Your task to perform on an android device: move a message to another label in the gmail app Image 0: 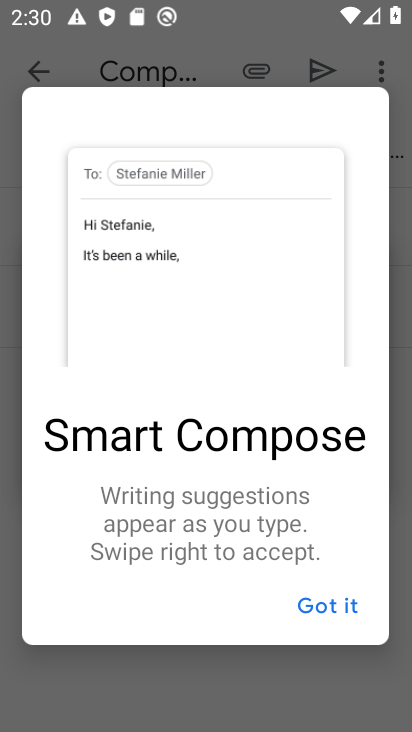
Step 0: press back button
Your task to perform on an android device: move a message to another label in the gmail app Image 1: 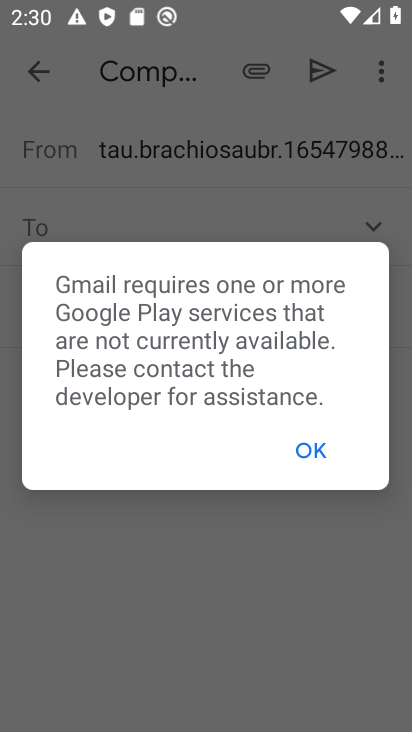
Step 1: press back button
Your task to perform on an android device: move a message to another label in the gmail app Image 2: 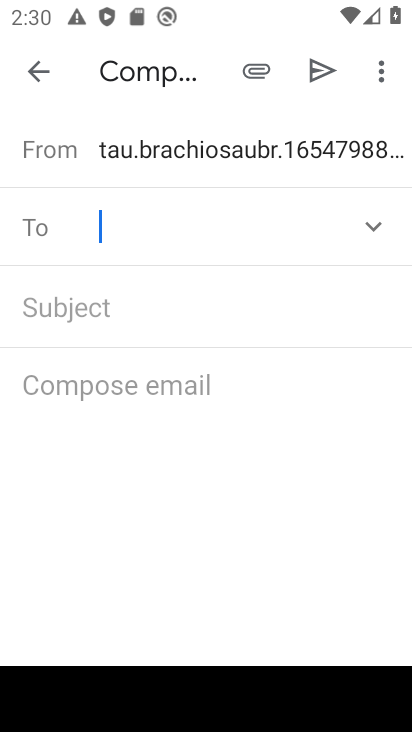
Step 2: press home button
Your task to perform on an android device: move a message to another label in the gmail app Image 3: 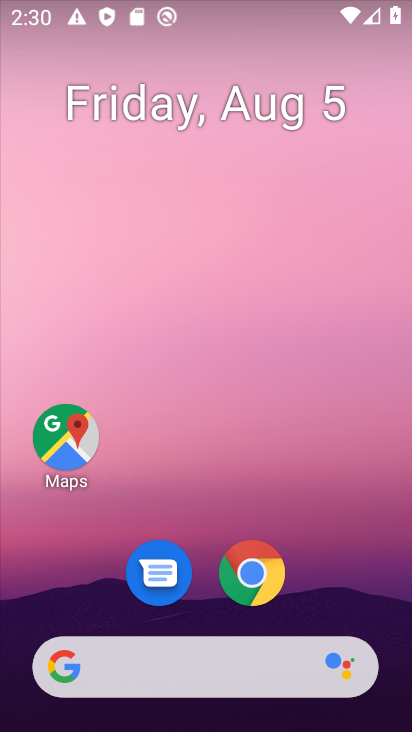
Step 3: drag from (315, 591) to (228, 188)
Your task to perform on an android device: move a message to another label in the gmail app Image 4: 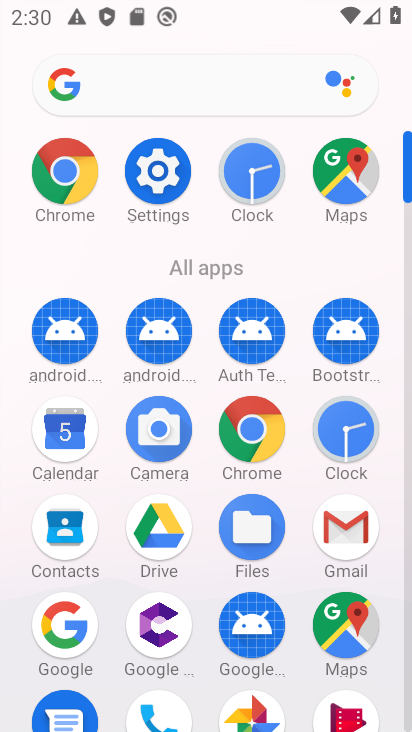
Step 4: click (342, 541)
Your task to perform on an android device: move a message to another label in the gmail app Image 5: 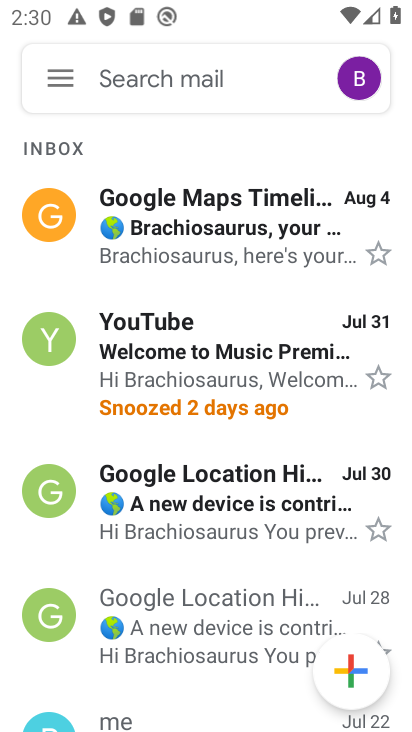
Step 5: click (66, 90)
Your task to perform on an android device: move a message to another label in the gmail app Image 6: 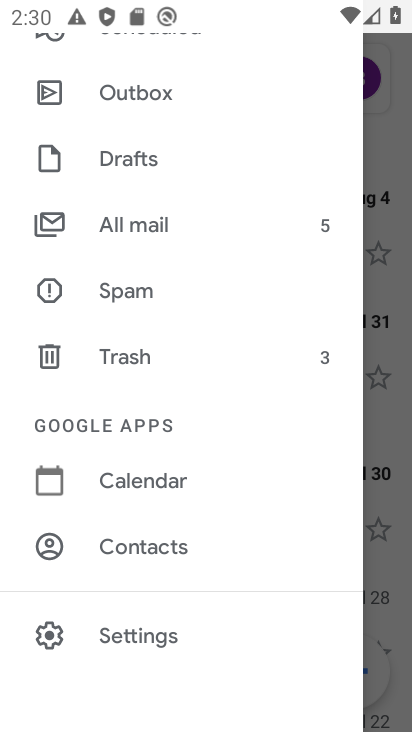
Step 6: click (181, 225)
Your task to perform on an android device: move a message to another label in the gmail app Image 7: 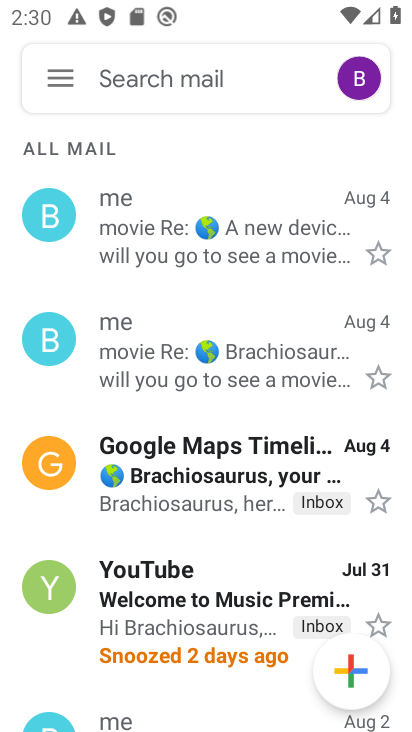
Step 7: click (184, 255)
Your task to perform on an android device: move a message to another label in the gmail app Image 8: 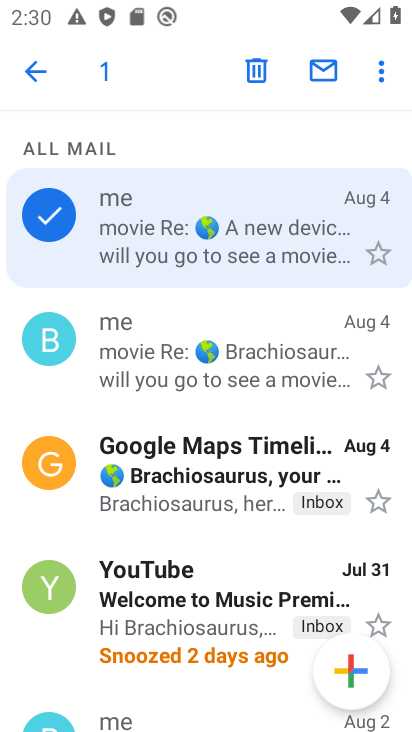
Step 8: click (374, 90)
Your task to perform on an android device: move a message to another label in the gmail app Image 9: 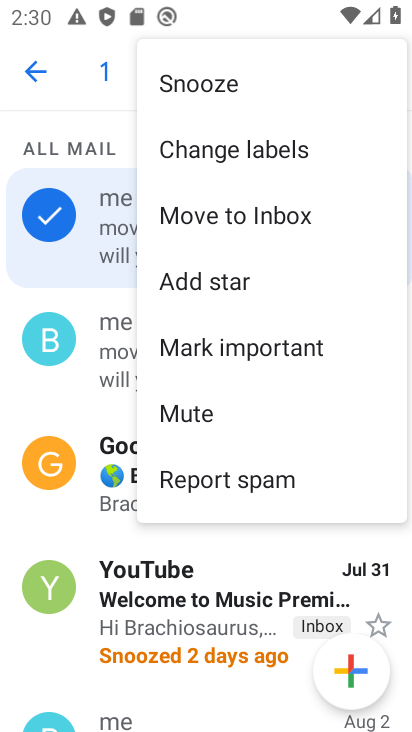
Step 9: click (311, 150)
Your task to perform on an android device: move a message to another label in the gmail app Image 10: 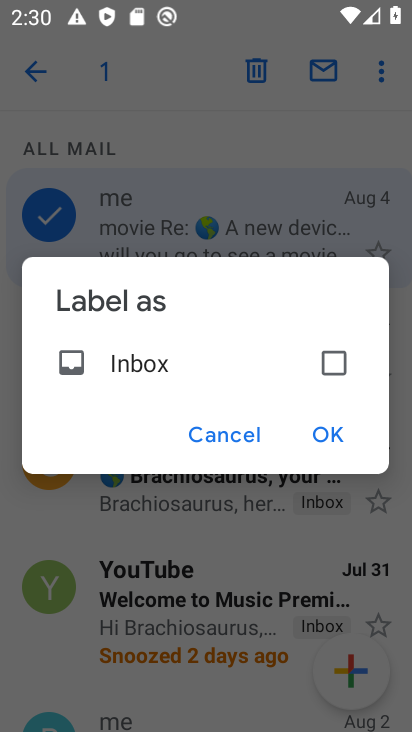
Step 10: click (340, 365)
Your task to perform on an android device: move a message to another label in the gmail app Image 11: 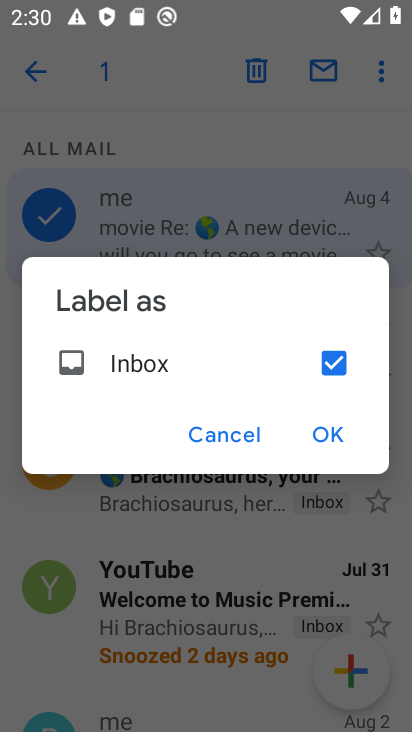
Step 11: click (341, 443)
Your task to perform on an android device: move a message to another label in the gmail app Image 12: 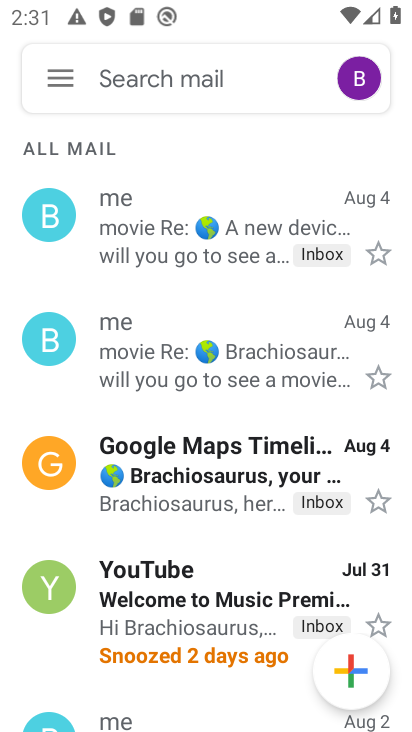
Step 12: task complete